Your task to perform on an android device: snooze an email in the gmail app Image 0: 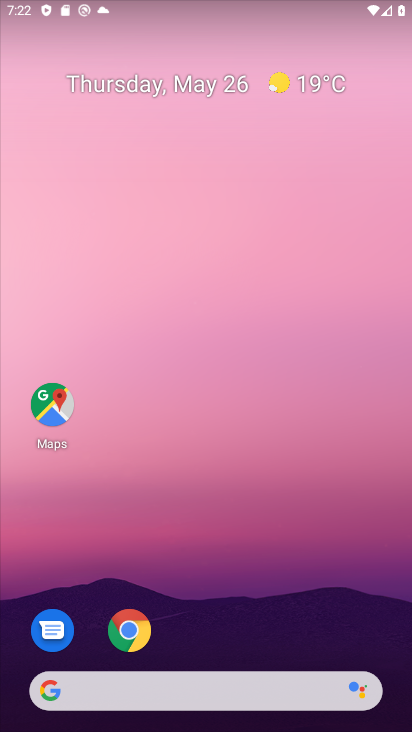
Step 0: drag from (256, 624) to (218, 68)
Your task to perform on an android device: snooze an email in the gmail app Image 1: 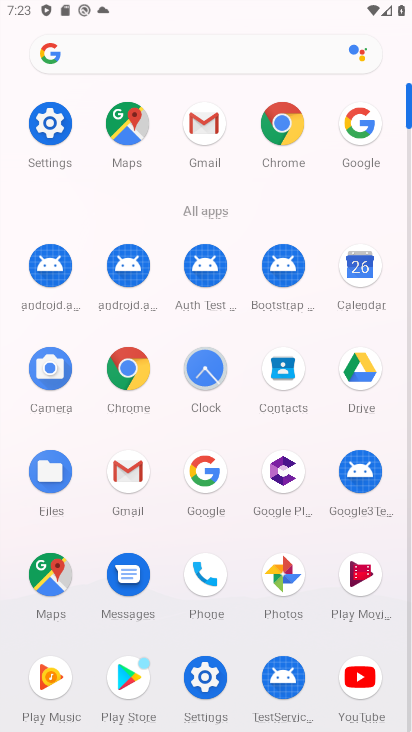
Step 1: click (205, 122)
Your task to perform on an android device: snooze an email in the gmail app Image 2: 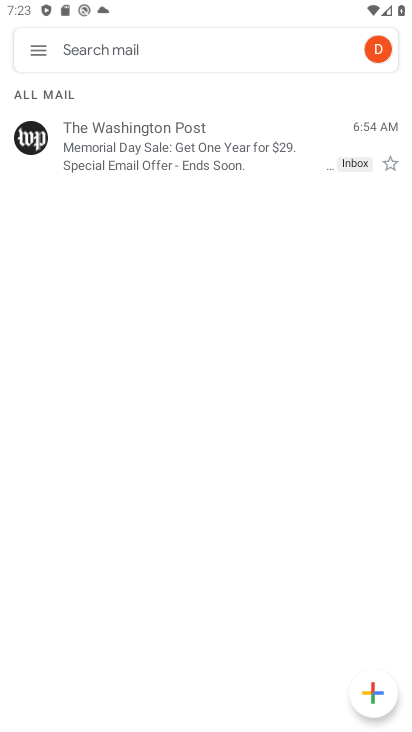
Step 2: click (227, 167)
Your task to perform on an android device: snooze an email in the gmail app Image 3: 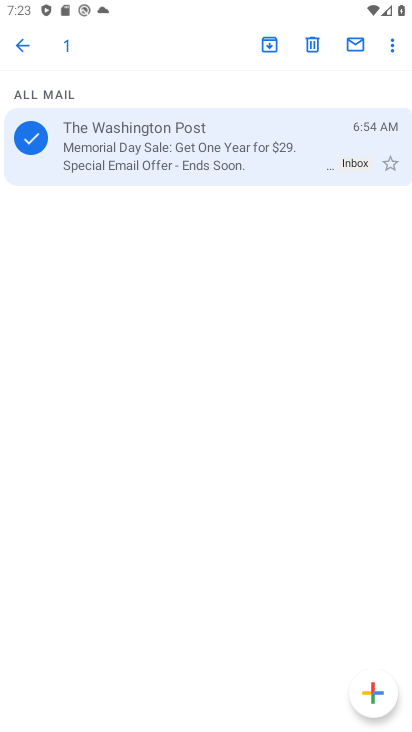
Step 3: click (387, 49)
Your task to perform on an android device: snooze an email in the gmail app Image 4: 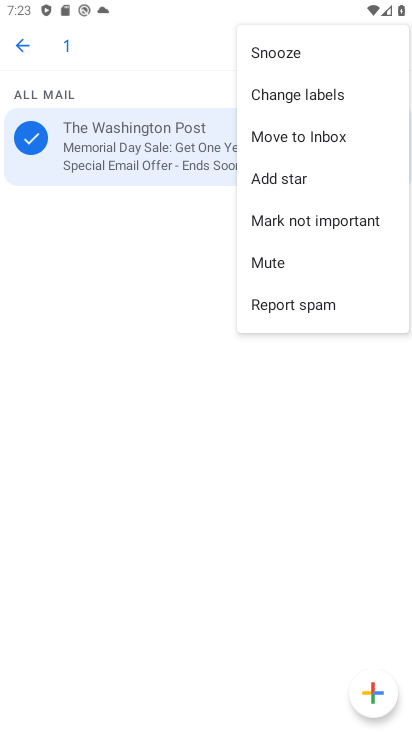
Step 4: click (286, 53)
Your task to perform on an android device: snooze an email in the gmail app Image 5: 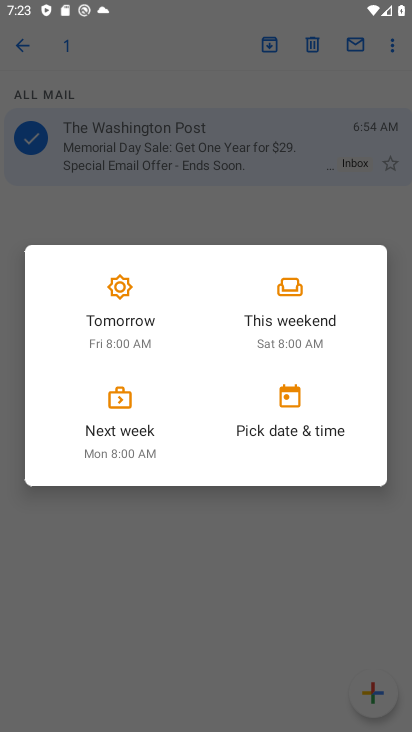
Step 5: click (127, 433)
Your task to perform on an android device: snooze an email in the gmail app Image 6: 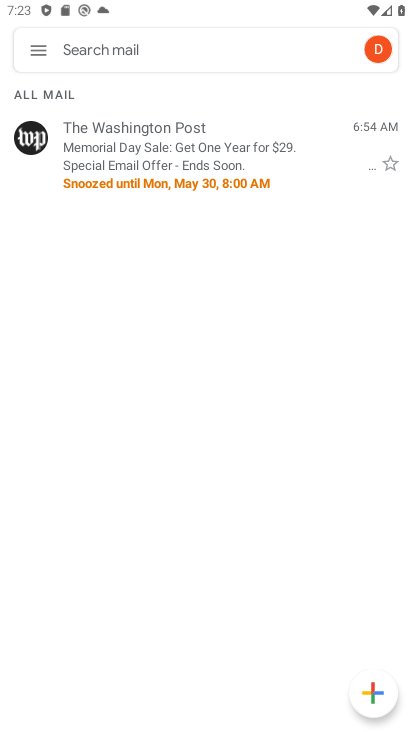
Step 6: task complete